Your task to perform on an android device: Open the stopwatch Image 0: 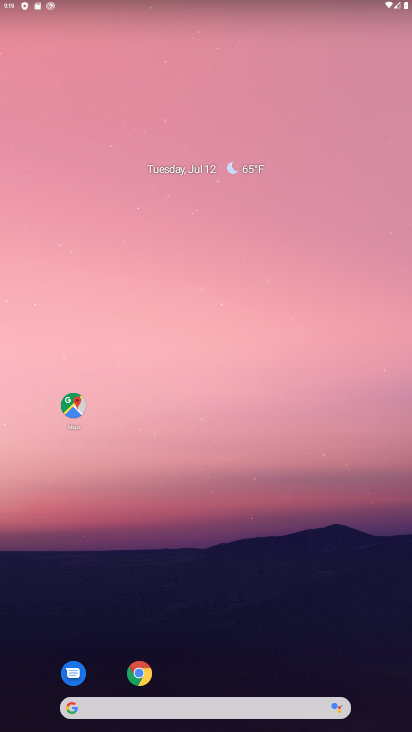
Step 0: drag from (346, 612) to (347, 92)
Your task to perform on an android device: Open the stopwatch Image 1: 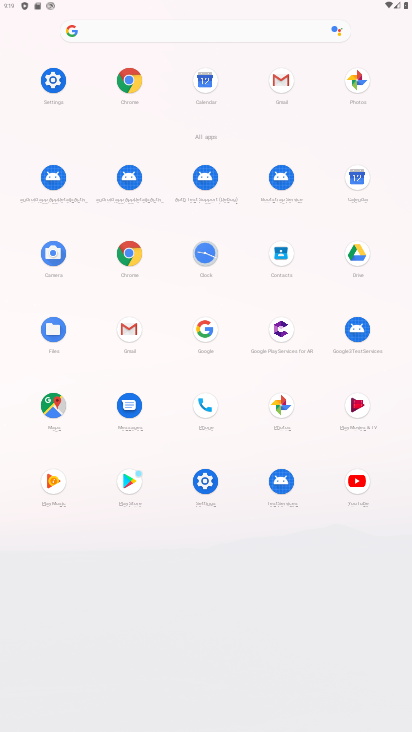
Step 1: click (200, 252)
Your task to perform on an android device: Open the stopwatch Image 2: 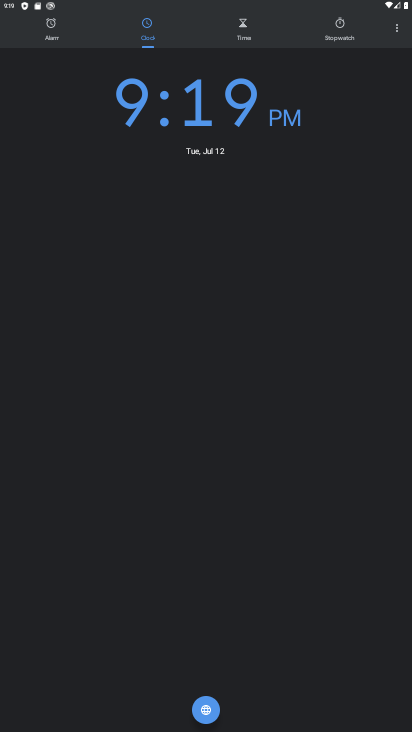
Step 2: click (338, 38)
Your task to perform on an android device: Open the stopwatch Image 3: 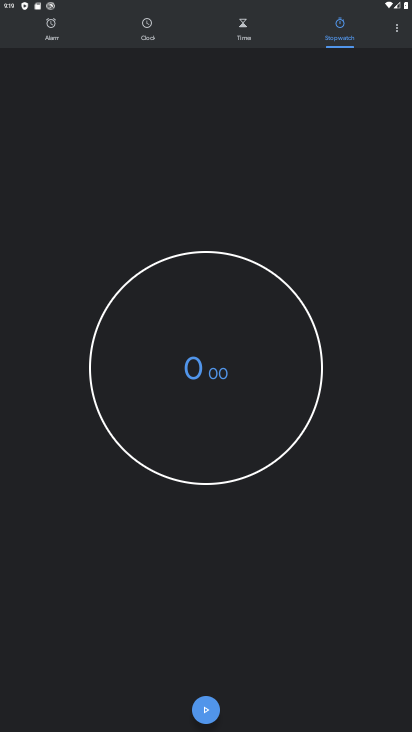
Step 3: task complete